Your task to perform on an android device: open app "Google Play Music" (install if not already installed) Image 0: 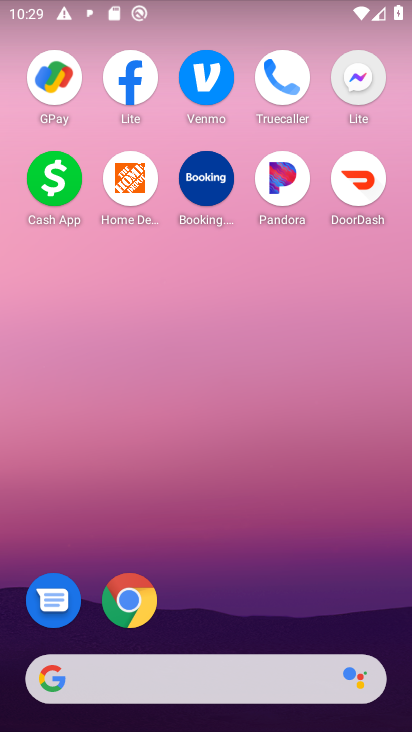
Step 0: drag from (208, 566) to (271, 122)
Your task to perform on an android device: open app "Google Play Music" (install if not already installed) Image 1: 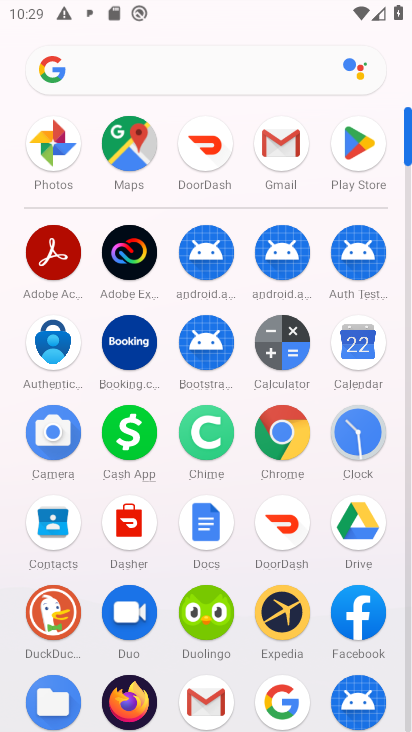
Step 1: click (353, 143)
Your task to perform on an android device: open app "Google Play Music" (install if not already installed) Image 2: 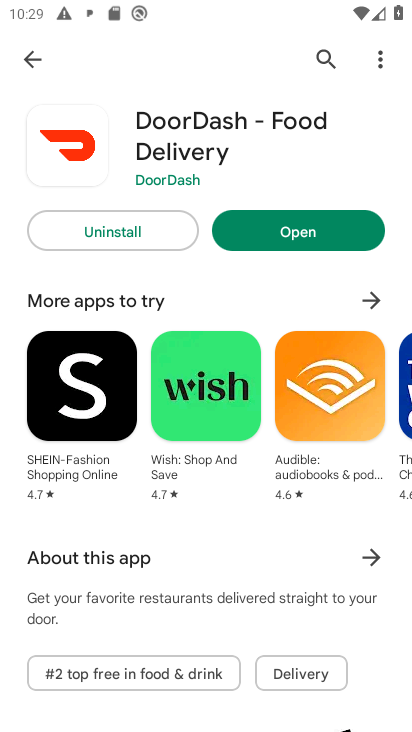
Step 2: click (323, 57)
Your task to perform on an android device: open app "Google Play Music" (install if not already installed) Image 3: 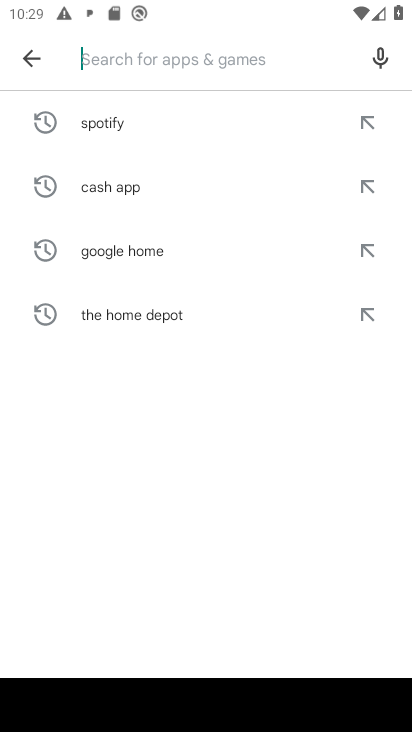
Step 3: type "Google Play Music"
Your task to perform on an android device: open app "Google Play Music" (install if not already installed) Image 4: 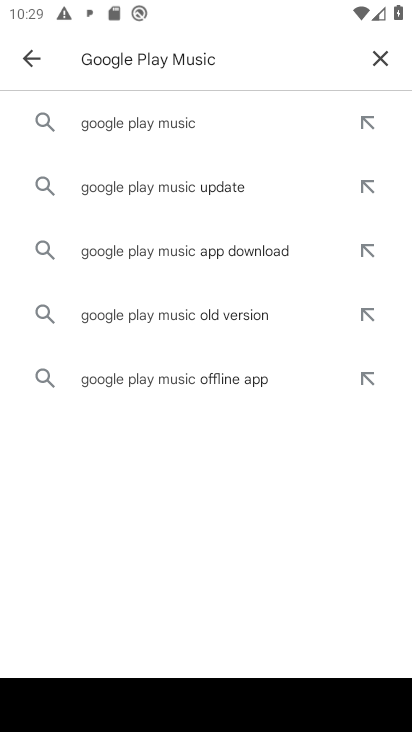
Step 4: click (172, 126)
Your task to perform on an android device: open app "Google Play Music" (install if not already installed) Image 5: 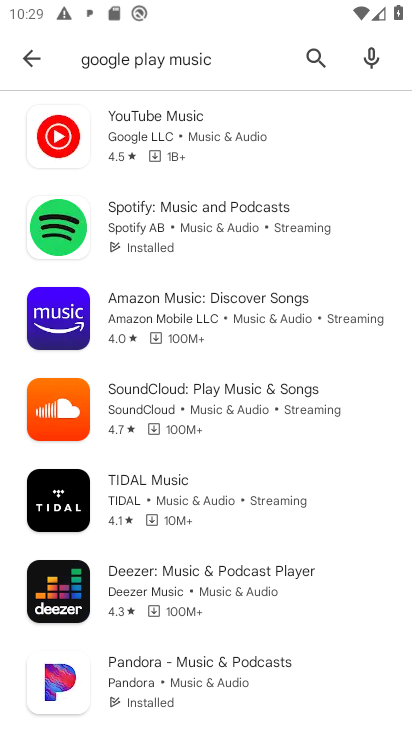
Step 5: task complete